Your task to perform on an android device: turn on wifi Image 0: 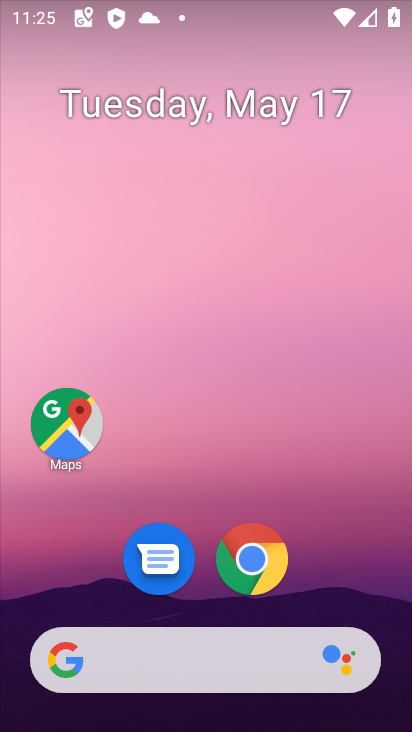
Step 0: drag from (225, 714) to (302, 1)
Your task to perform on an android device: turn on wifi Image 1: 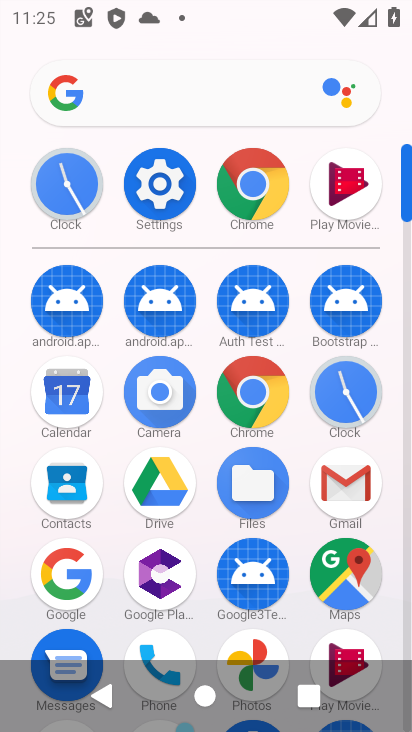
Step 1: click (137, 197)
Your task to perform on an android device: turn on wifi Image 2: 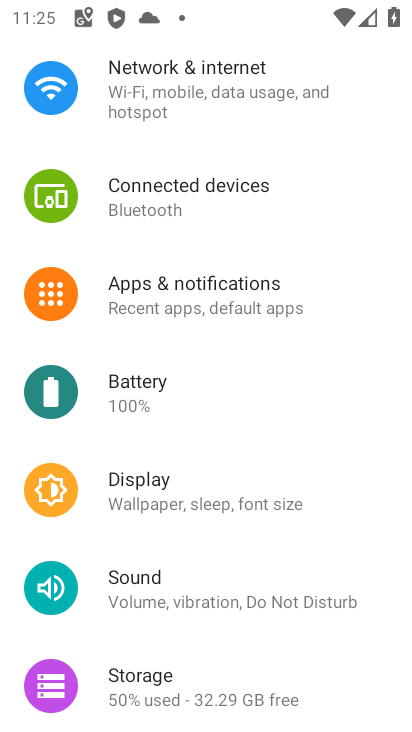
Step 2: click (314, 91)
Your task to perform on an android device: turn on wifi Image 3: 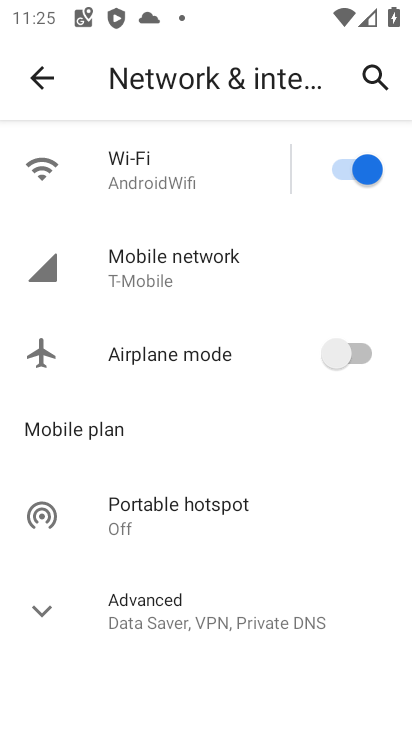
Step 3: task complete